Your task to perform on an android device: Add "amazon basics triple a" to the cart on ebay.com Image 0: 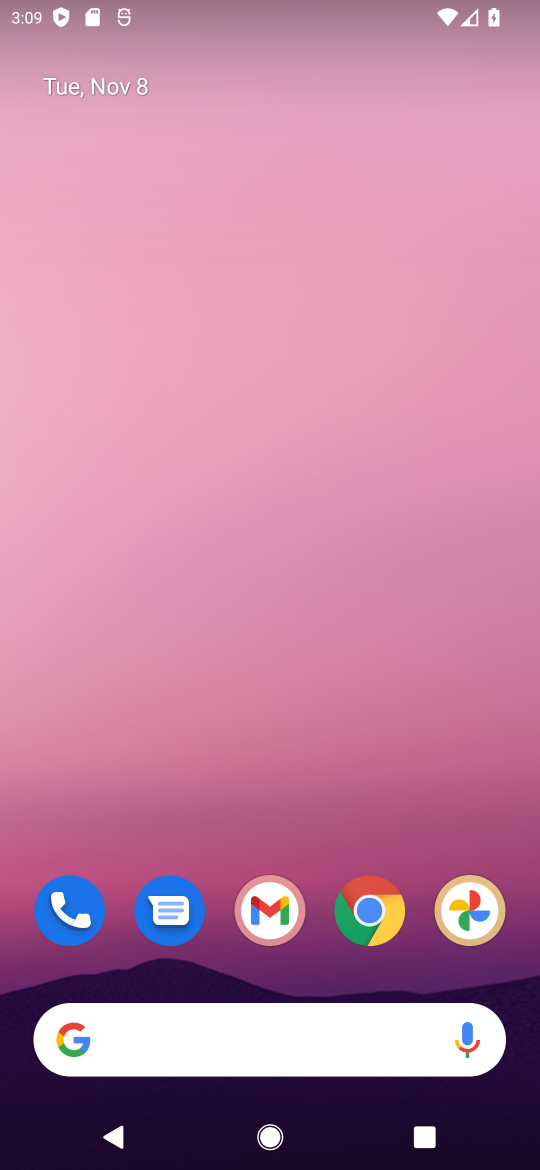
Step 0: drag from (313, 972) to (392, 117)
Your task to perform on an android device: Add "amazon basics triple a" to the cart on ebay.com Image 1: 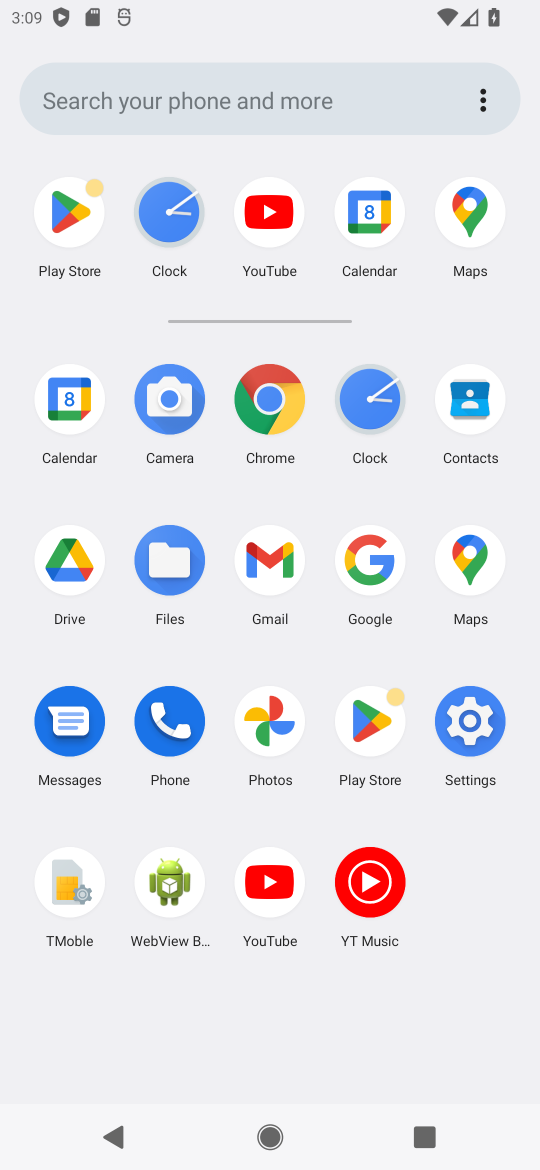
Step 1: click (270, 404)
Your task to perform on an android device: Add "amazon basics triple a" to the cart on ebay.com Image 2: 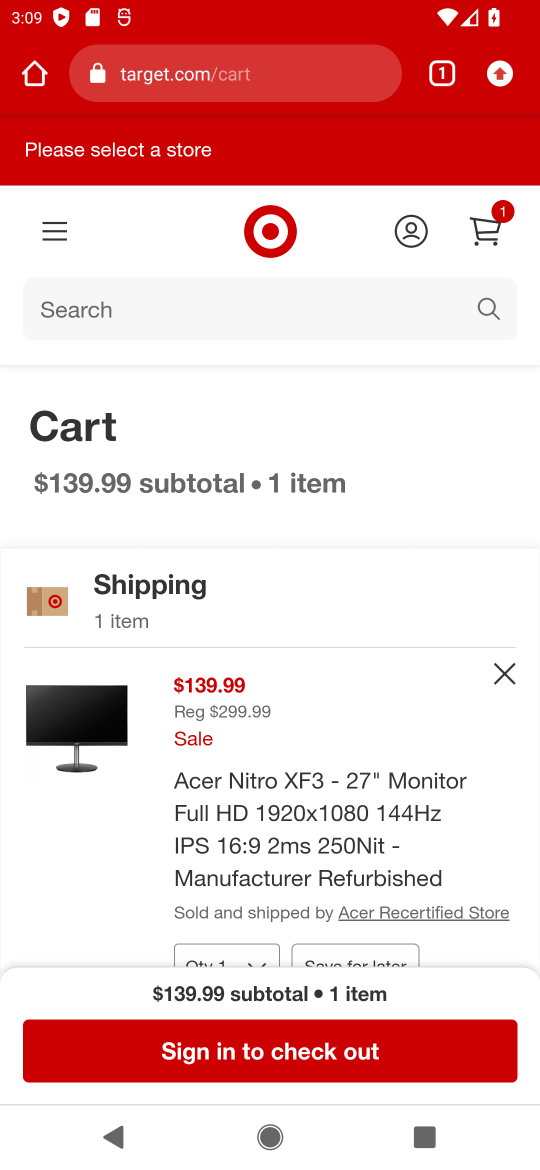
Step 2: click (293, 69)
Your task to perform on an android device: Add "amazon basics triple a" to the cart on ebay.com Image 3: 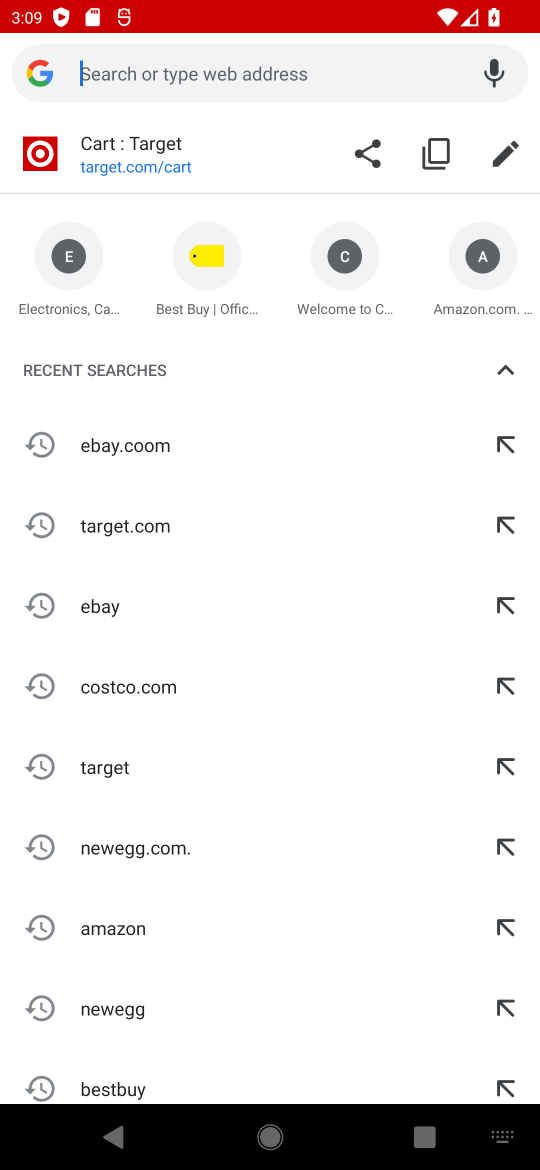
Step 3: type "ebay.com"
Your task to perform on an android device: Add "amazon basics triple a" to the cart on ebay.com Image 4: 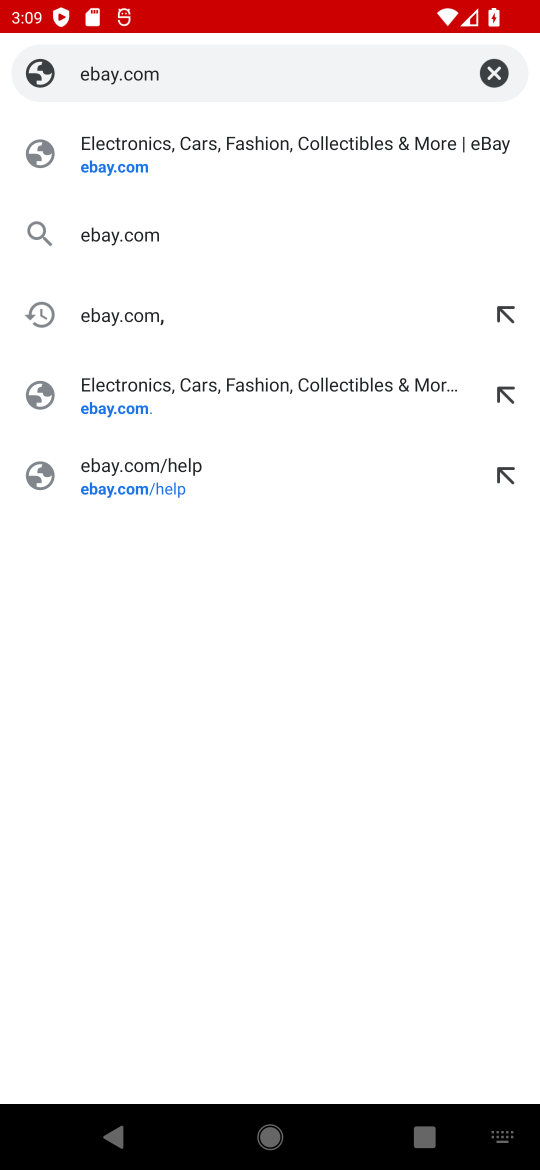
Step 4: press enter
Your task to perform on an android device: Add "amazon basics triple a" to the cart on ebay.com Image 5: 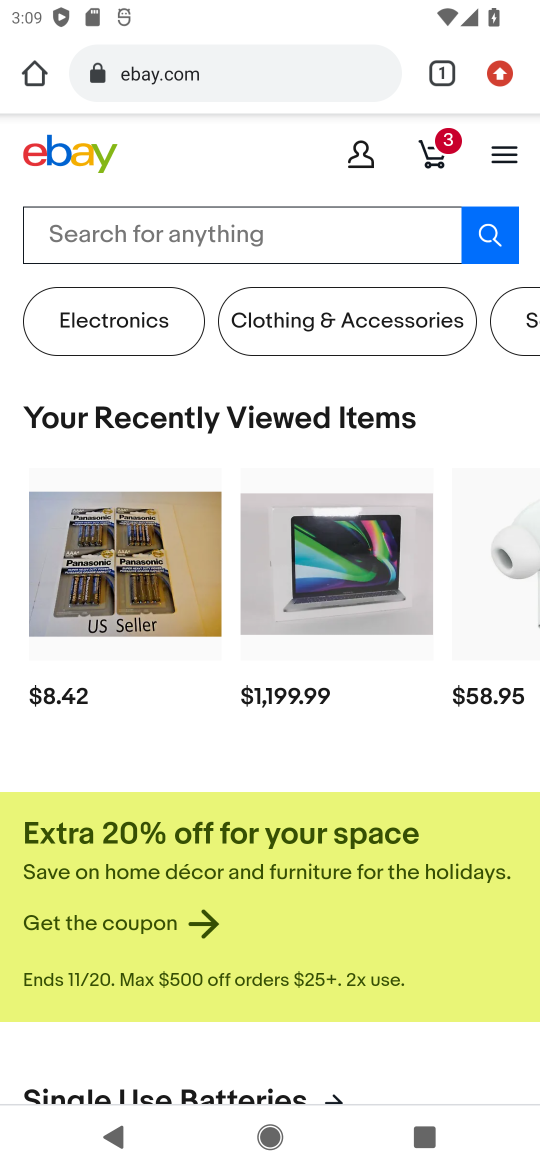
Step 5: click (338, 228)
Your task to perform on an android device: Add "amazon basics triple a" to the cart on ebay.com Image 6: 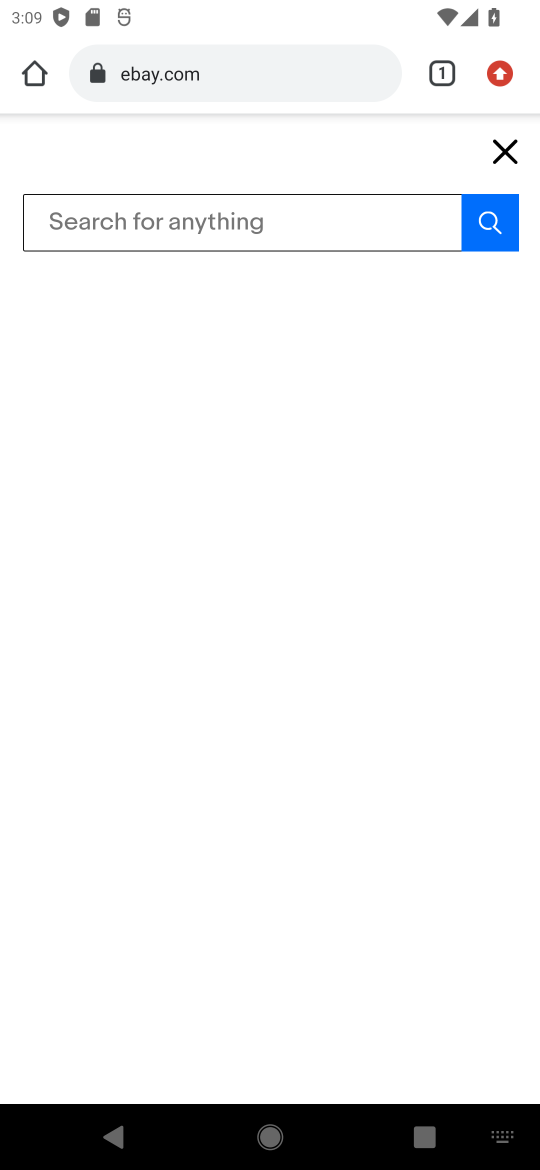
Step 6: type "amazon basics triple a"
Your task to perform on an android device: Add "amazon basics triple a" to the cart on ebay.com Image 7: 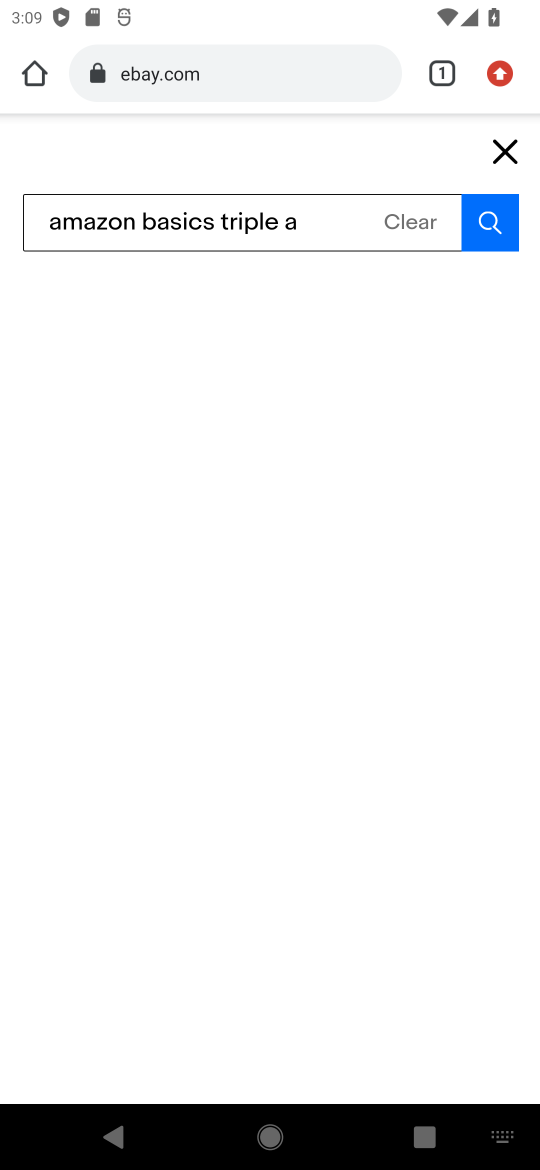
Step 7: press enter
Your task to perform on an android device: Add "amazon basics triple a" to the cart on ebay.com Image 8: 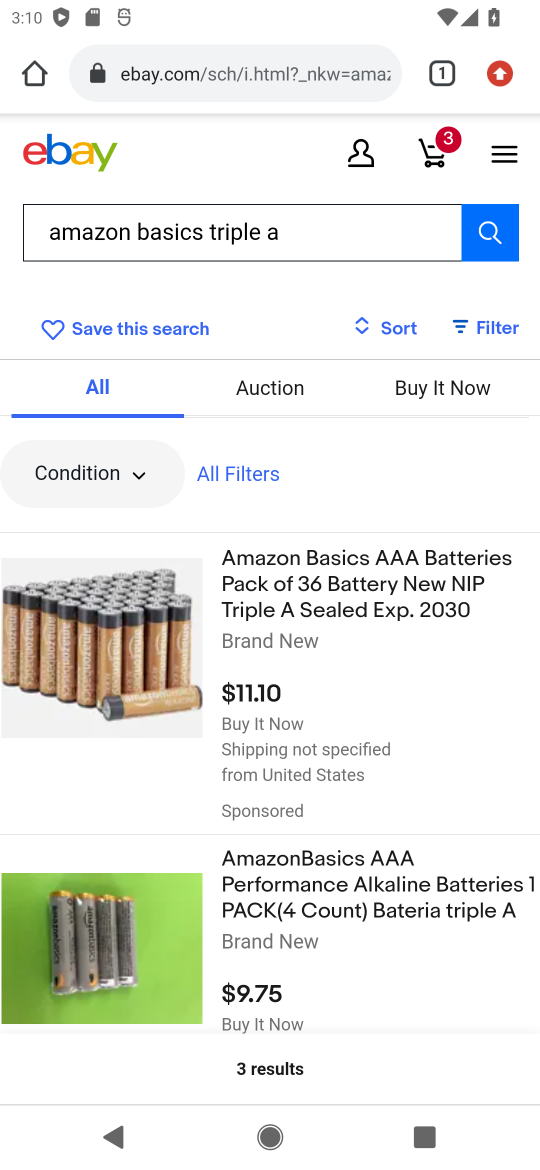
Step 8: click (127, 600)
Your task to perform on an android device: Add "amazon basics triple a" to the cart on ebay.com Image 9: 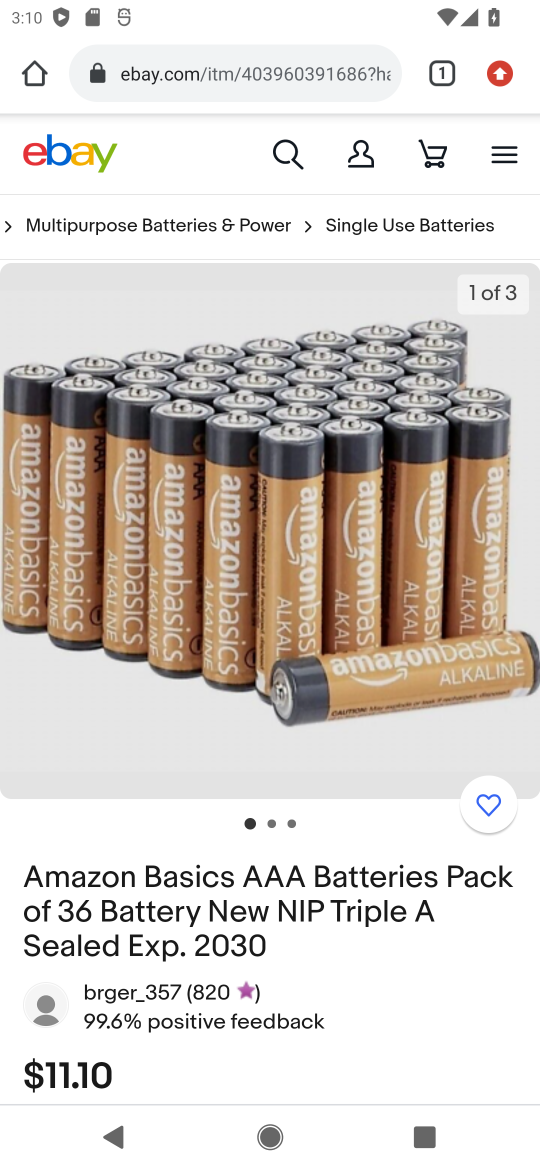
Step 9: drag from (314, 903) to (455, 91)
Your task to perform on an android device: Add "amazon basics triple a" to the cart on ebay.com Image 10: 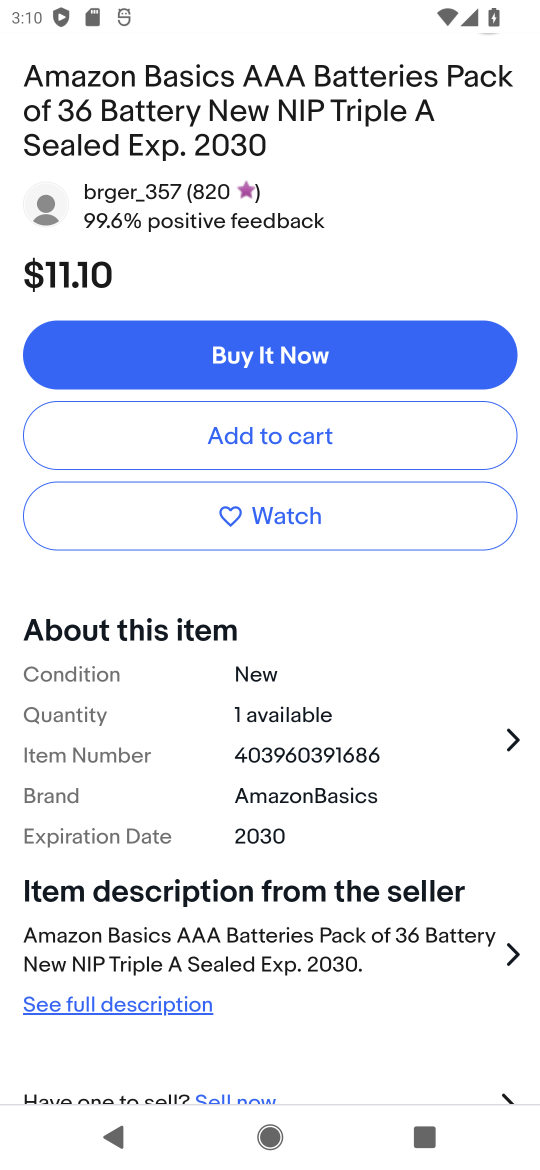
Step 10: click (277, 433)
Your task to perform on an android device: Add "amazon basics triple a" to the cart on ebay.com Image 11: 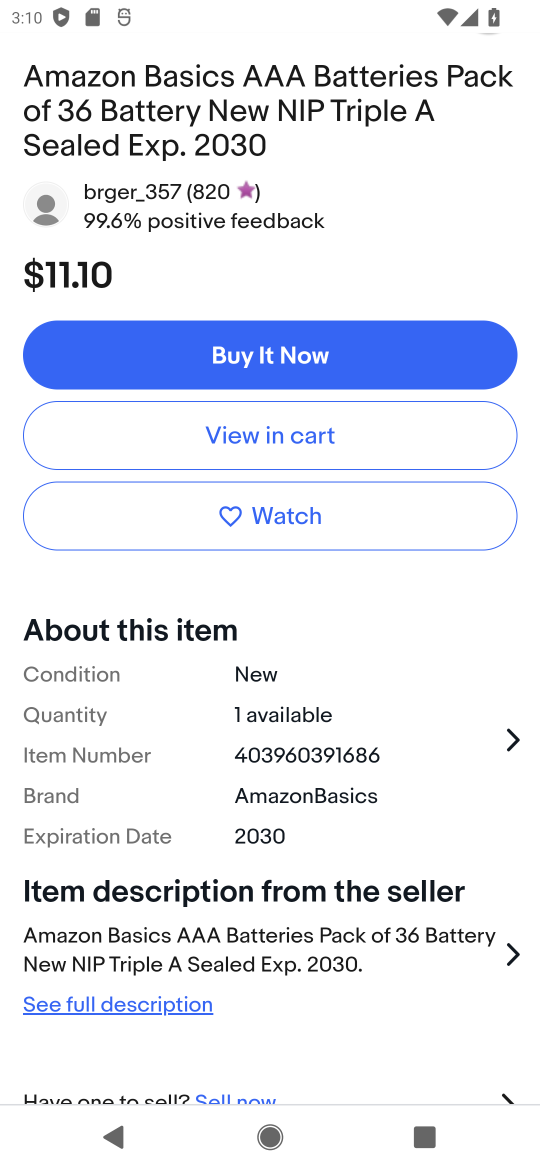
Step 11: task complete